Your task to perform on an android device: turn off translation in the chrome app Image 0: 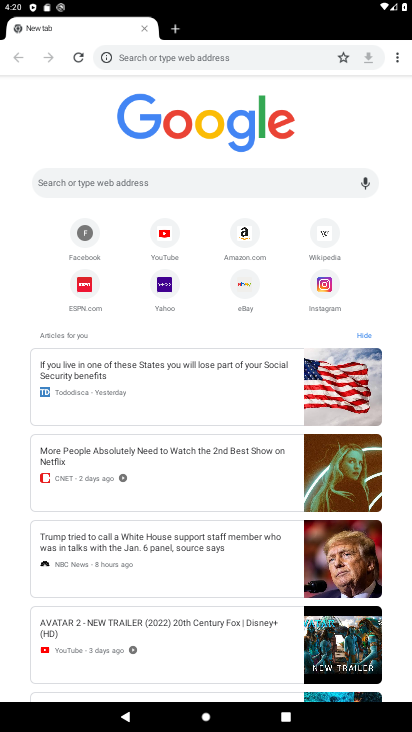
Step 0: drag from (392, 49) to (306, 269)
Your task to perform on an android device: turn off translation in the chrome app Image 1: 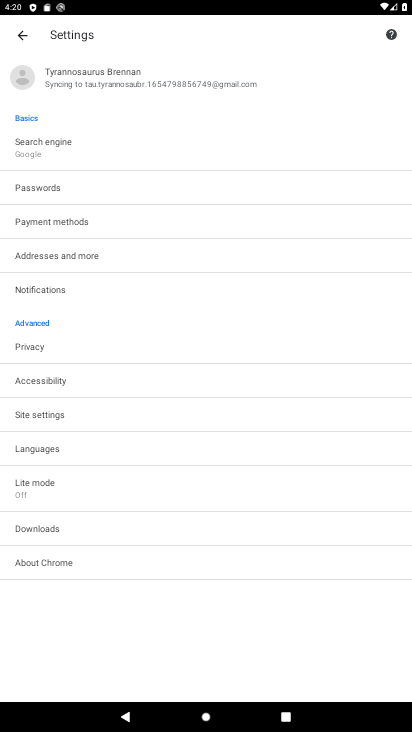
Step 1: click (69, 461)
Your task to perform on an android device: turn off translation in the chrome app Image 2: 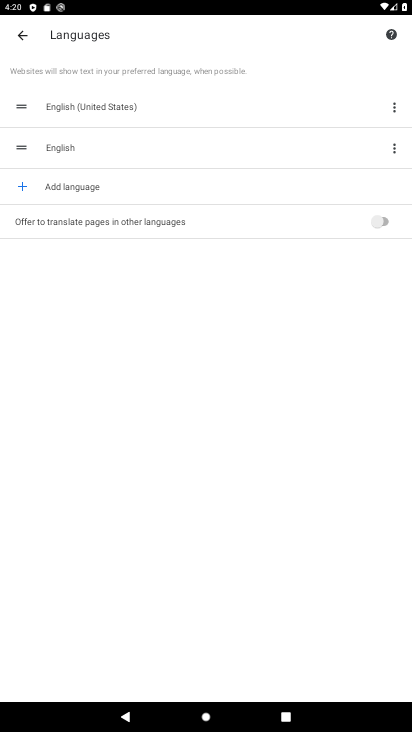
Step 2: task complete